Your task to perform on an android device: turn off sleep mode Image 0: 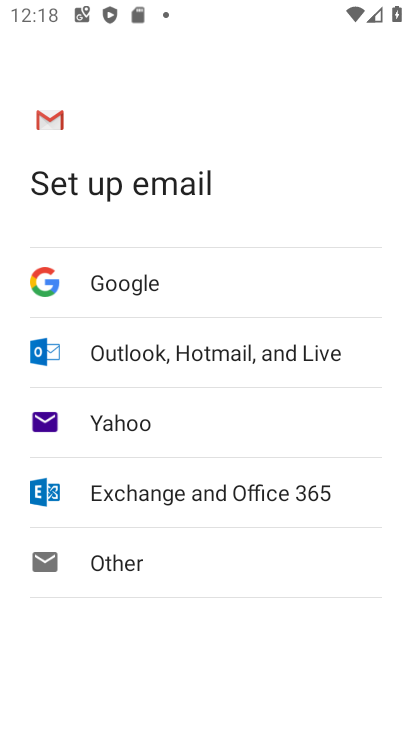
Step 0: press home button
Your task to perform on an android device: turn off sleep mode Image 1: 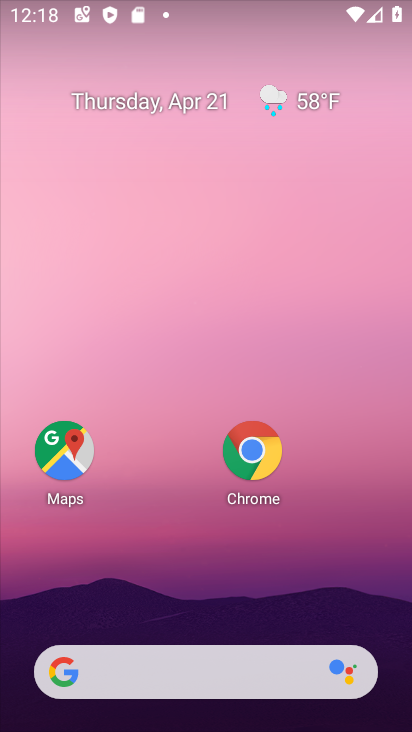
Step 1: drag from (186, 590) to (308, 23)
Your task to perform on an android device: turn off sleep mode Image 2: 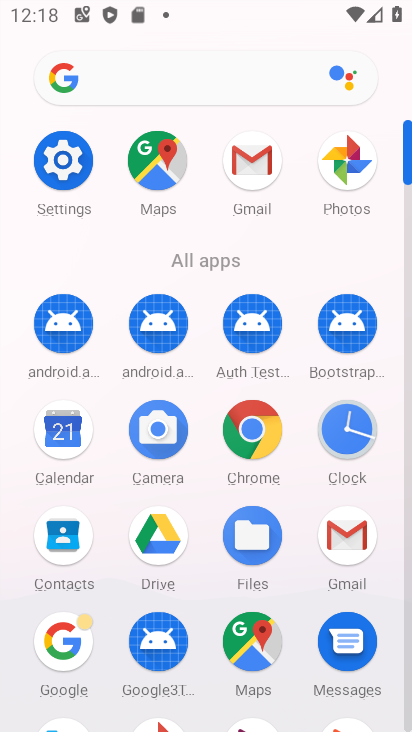
Step 2: click (74, 170)
Your task to perform on an android device: turn off sleep mode Image 3: 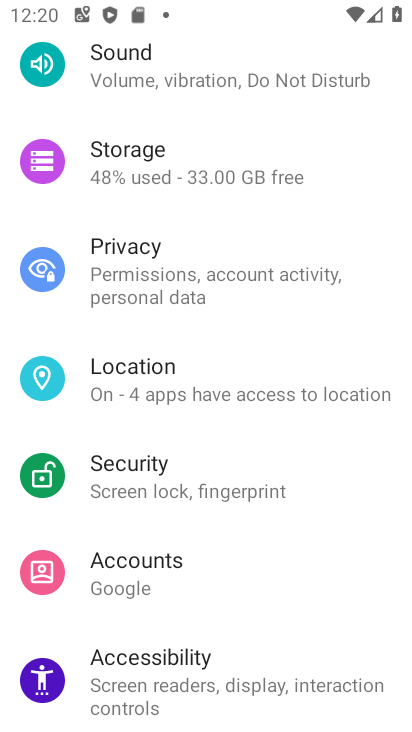
Step 3: task complete